Your task to perform on an android device: Open settings Image 0: 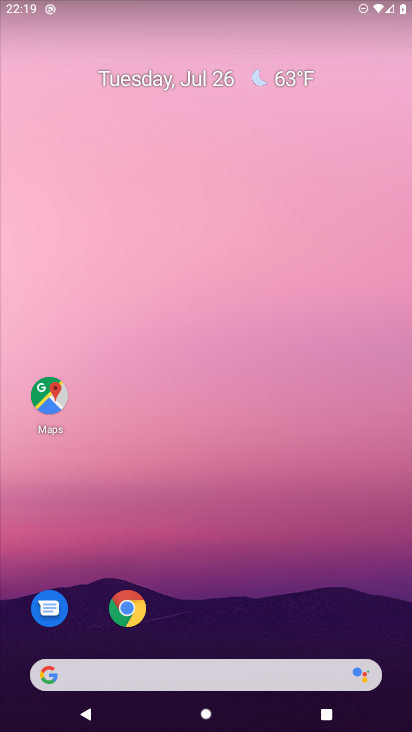
Step 0: drag from (52, 612) to (260, 62)
Your task to perform on an android device: Open settings Image 1: 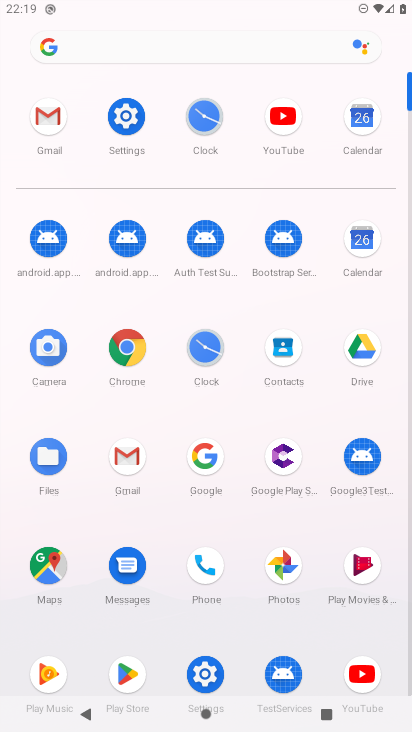
Step 1: click (205, 674)
Your task to perform on an android device: Open settings Image 2: 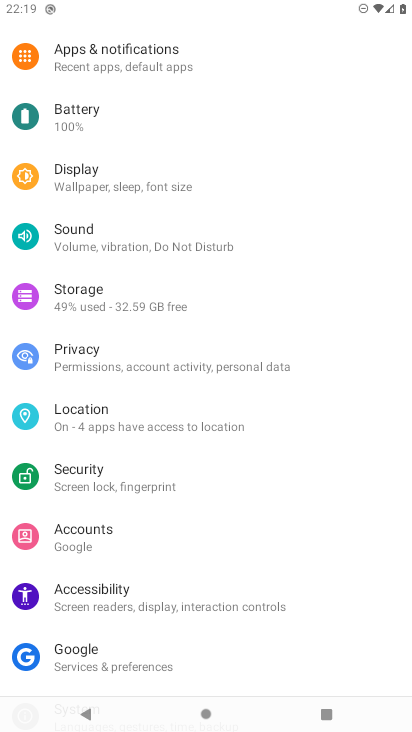
Step 2: task complete